Your task to perform on an android device: Add razer nari to the cart on bestbuy.com, then select checkout. Image 0: 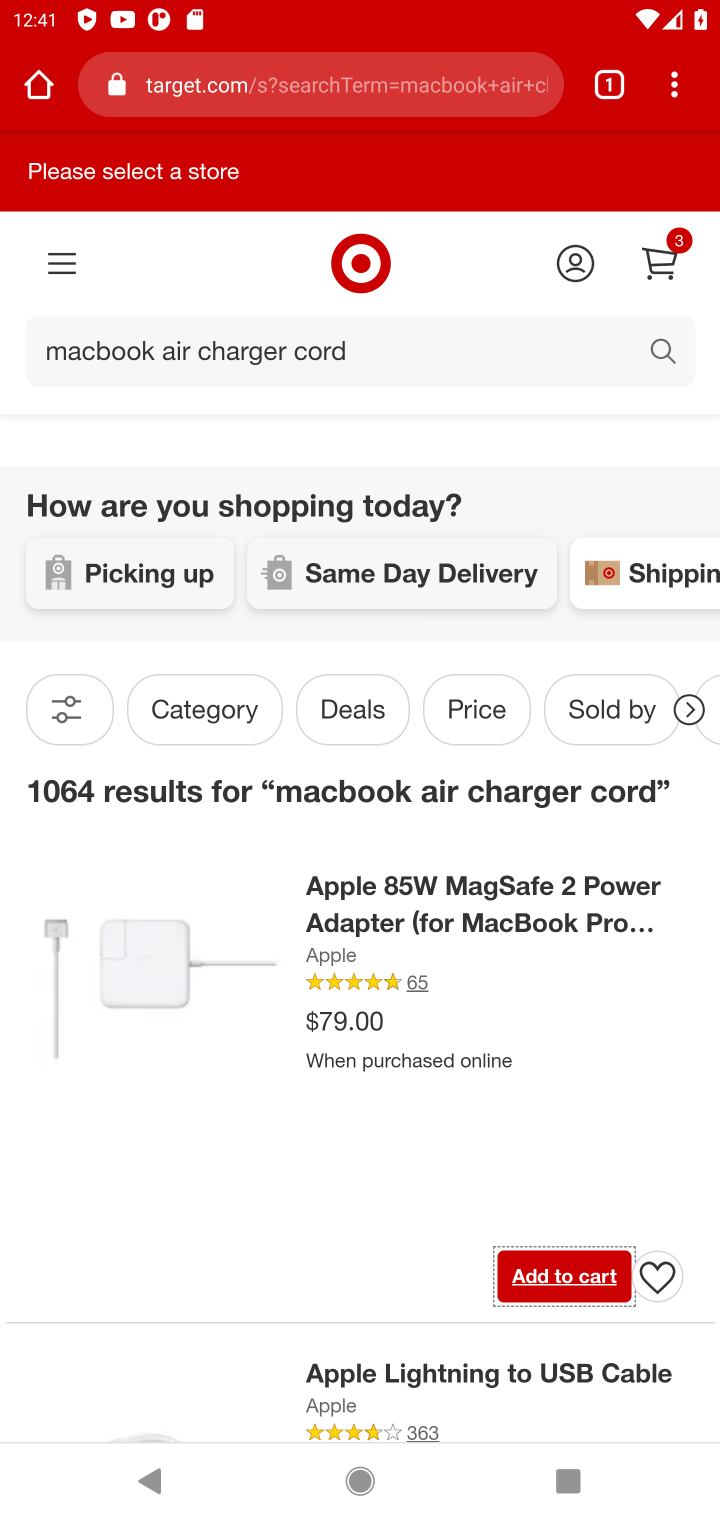
Step 0: task complete